Your task to perform on an android device: refresh tabs in the chrome app Image 0: 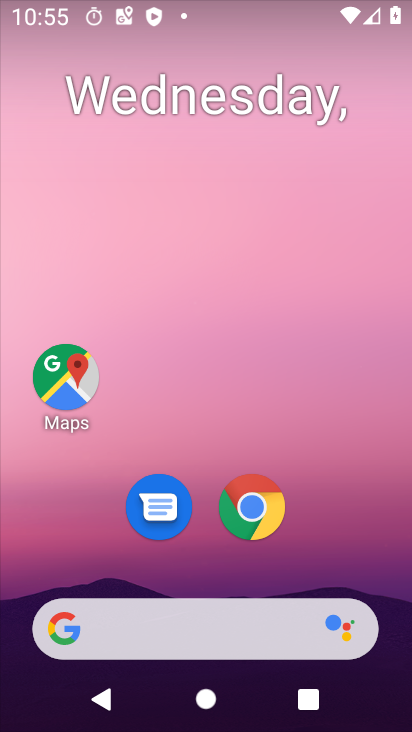
Step 0: click (246, 504)
Your task to perform on an android device: refresh tabs in the chrome app Image 1: 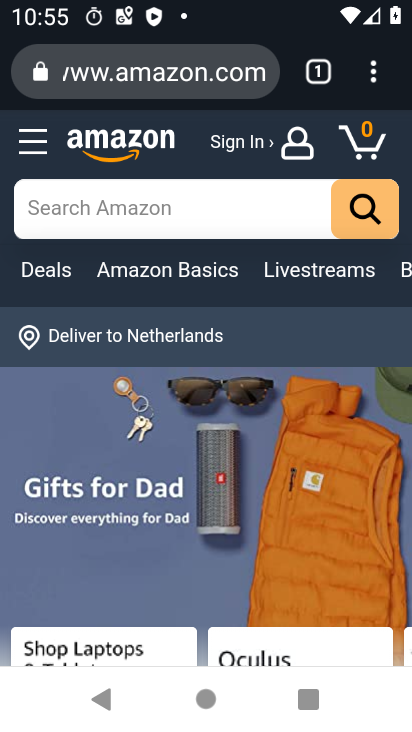
Step 1: click (375, 82)
Your task to perform on an android device: refresh tabs in the chrome app Image 2: 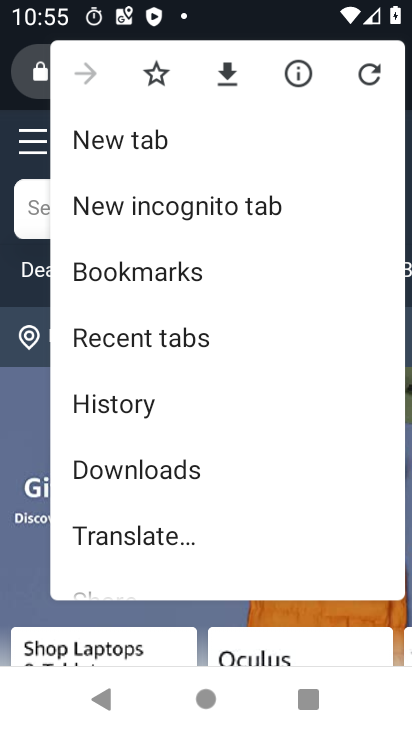
Step 2: click (370, 71)
Your task to perform on an android device: refresh tabs in the chrome app Image 3: 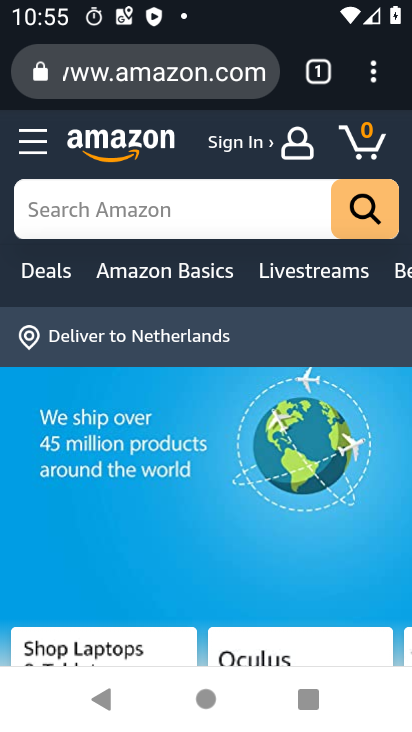
Step 3: task complete